Your task to perform on an android device: make emails show in primary in the gmail app Image 0: 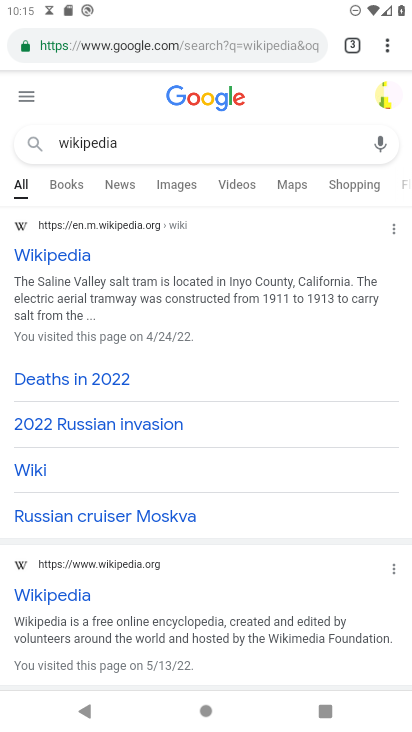
Step 0: press home button
Your task to perform on an android device: make emails show in primary in the gmail app Image 1: 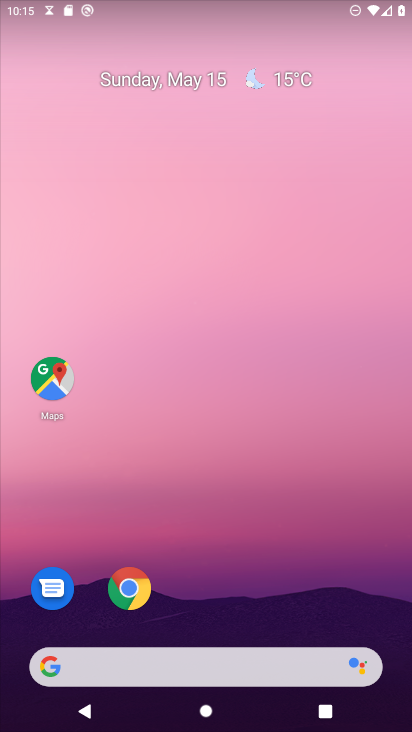
Step 1: drag from (192, 624) to (276, 69)
Your task to perform on an android device: make emails show in primary in the gmail app Image 2: 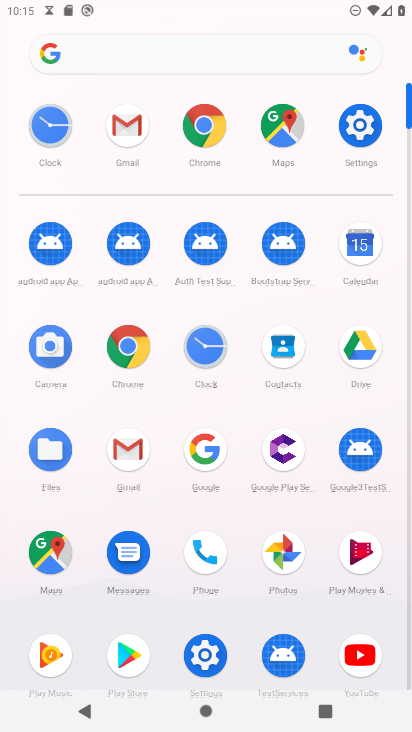
Step 2: click (109, 447)
Your task to perform on an android device: make emails show in primary in the gmail app Image 3: 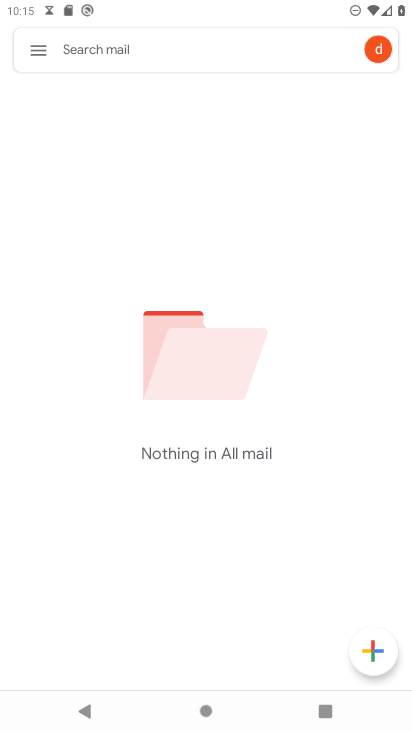
Step 3: click (41, 52)
Your task to perform on an android device: make emails show in primary in the gmail app Image 4: 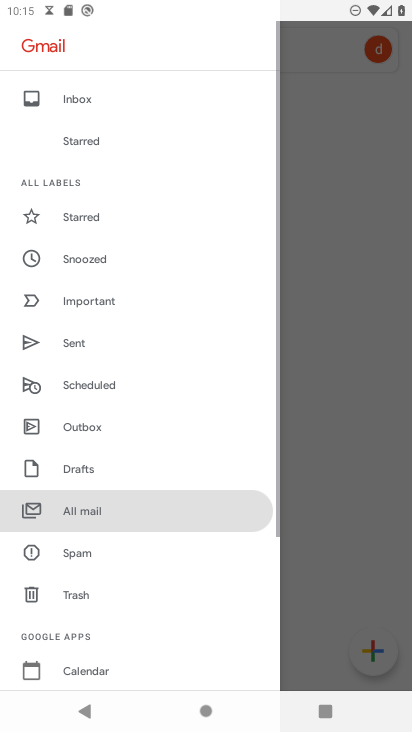
Step 4: drag from (94, 646) to (188, 56)
Your task to perform on an android device: make emails show in primary in the gmail app Image 5: 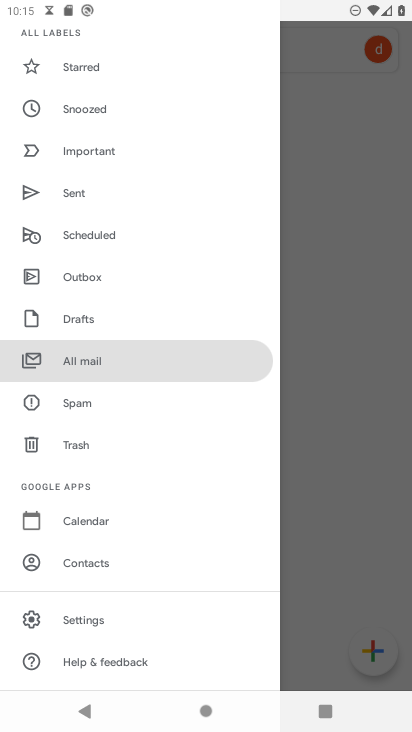
Step 5: click (93, 628)
Your task to perform on an android device: make emails show in primary in the gmail app Image 6: 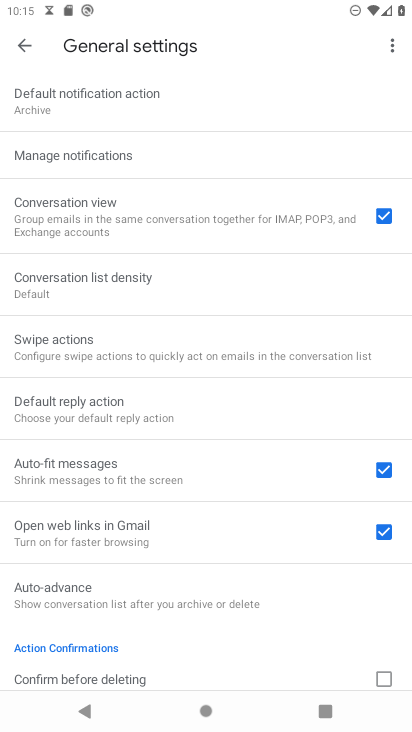
Step 6: click (19, 46)
Your task to perform on an android device: make emails show in primary in the gmail app Image 7: 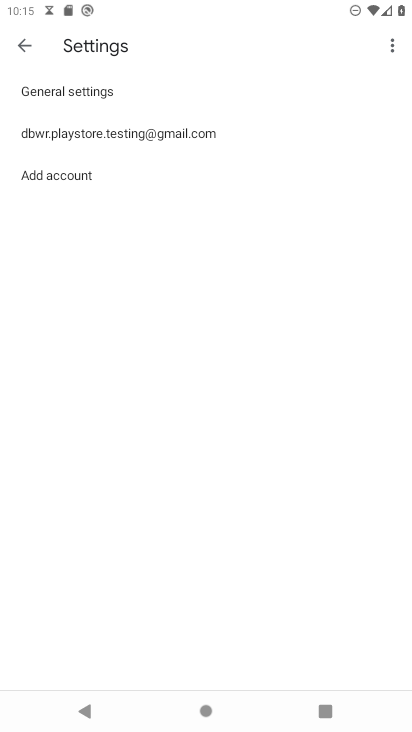
Step 7: click (111, 140)
Your task to perform on an android device: make emails show in primary in the gmail app Image 8: 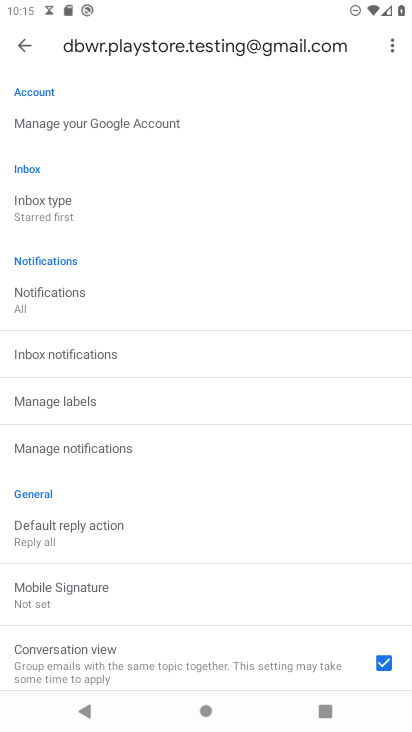
Step 8: click (54, 213)
Your task to perform on an android device: make emails show in primary in the gmail app Image 9: 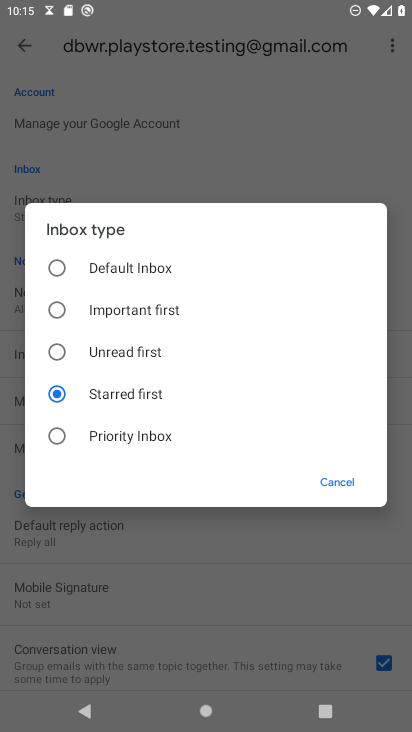
Step 9: click (123, 265)
Your task to perform on an android device: make emails show in primary in the gmail app Image 10: 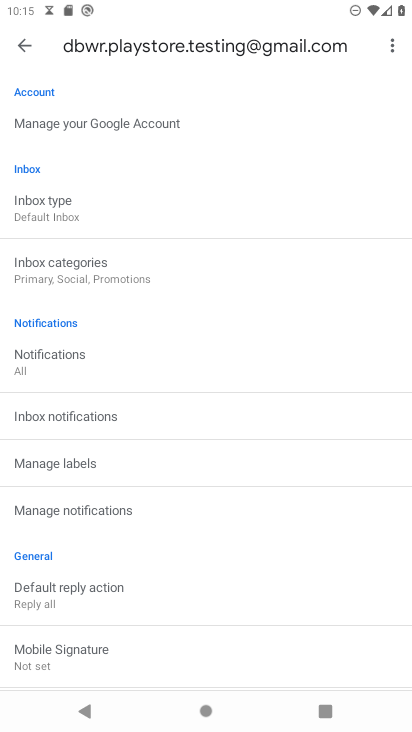
Step 10: click (59, 266)
Your task to perform on an android device: make emails show in primary in the gmail app Image 11: 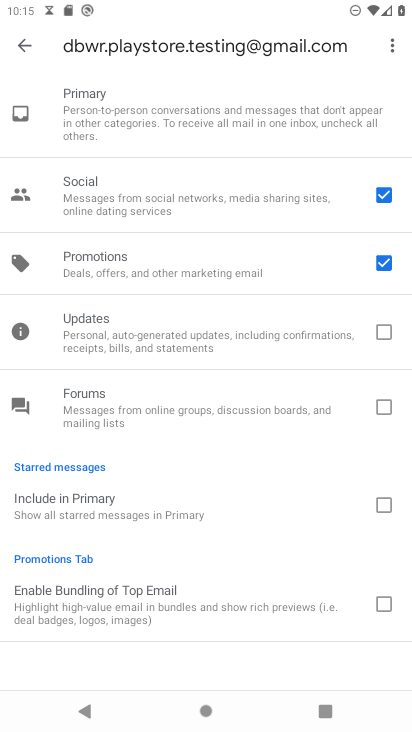
Step 11: click (383, 262)
Your task to perform on an android device: make emails show in primary in the gmail app Image 12: 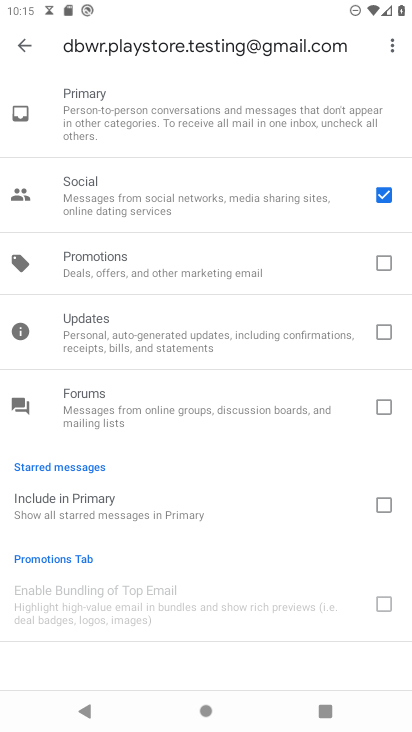
Step 12: click (381, 205)
Your task to perform on an android device: make emails show in primary in the gmail app Image 13: 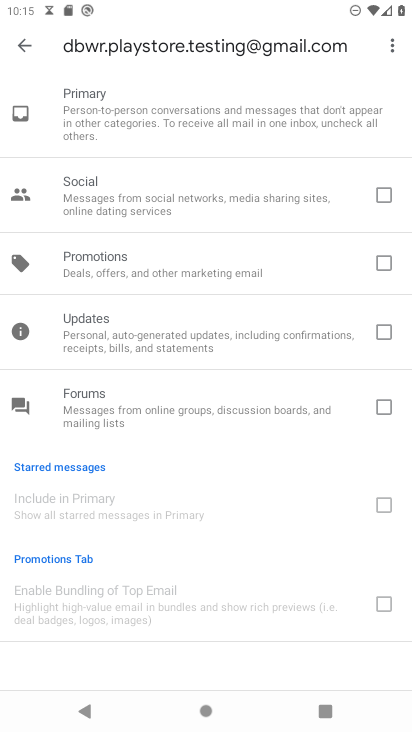
Step 13: task complete